Your task to perform on an android device: Open Youtube and go to "Your channel" Image 0: 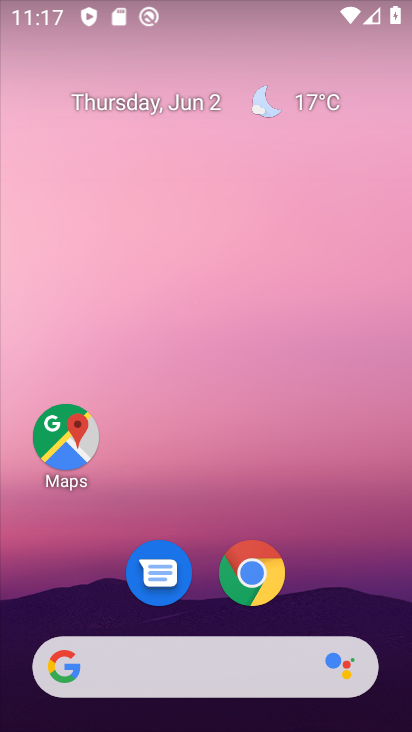
Step 0: task complete